Your task to perform on an android device: change notification settings in the gmail app Image 0: 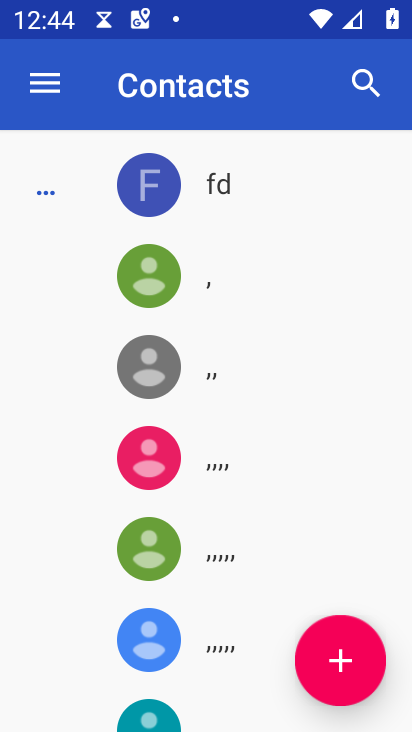
Step 0: press home button
Your task to perform on an android device: change notification settings in the gmail app Image 1: 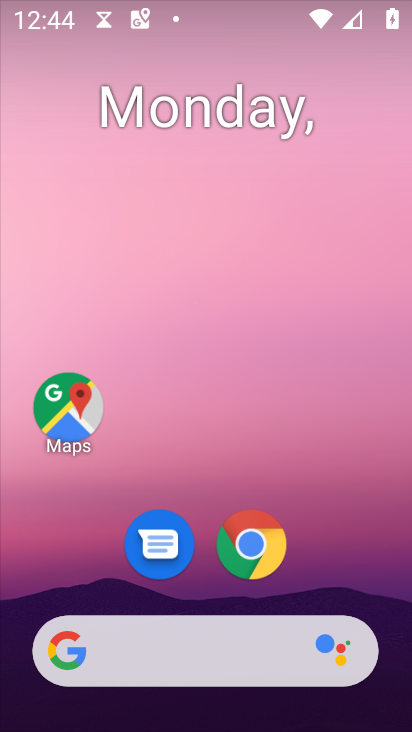
Step 1: drag from (342, 574) to (336, 290)
Your task to perform on an android device: change notification settings in the gmail app Image 2: 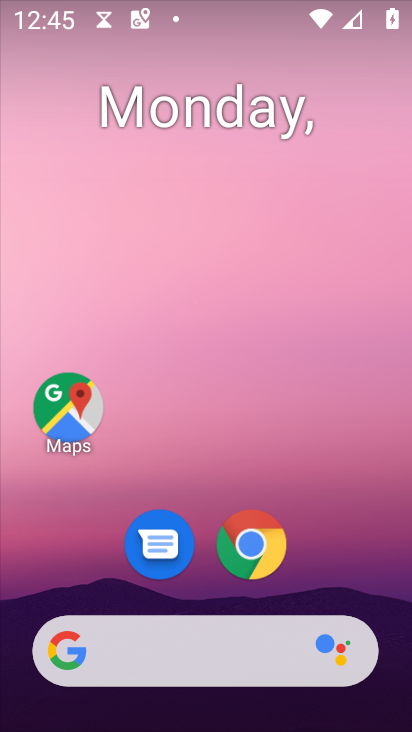
Step 2: drag from (325, 566) to (299, 201)
Your task to perform on an android device: change notification settings in the gmail app Image 3: 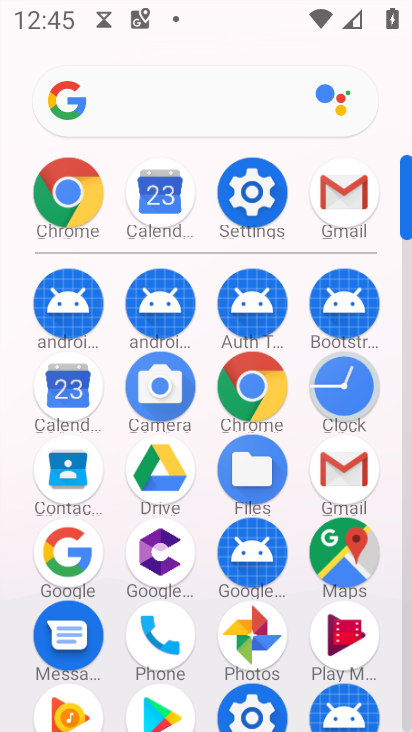
Step 3: click (324, 180)
Your task to perform on an android device: change notification settings in the gmail app Image 4: 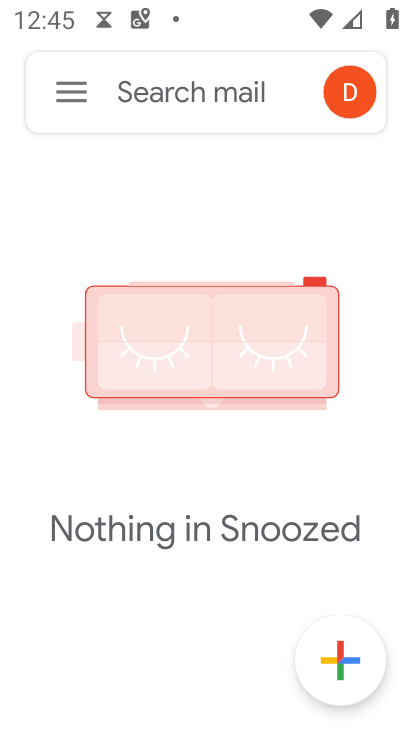
Step 4: click (78, 78)
Your task to perform on an android device: change notification settings in the gmail app Image 5: 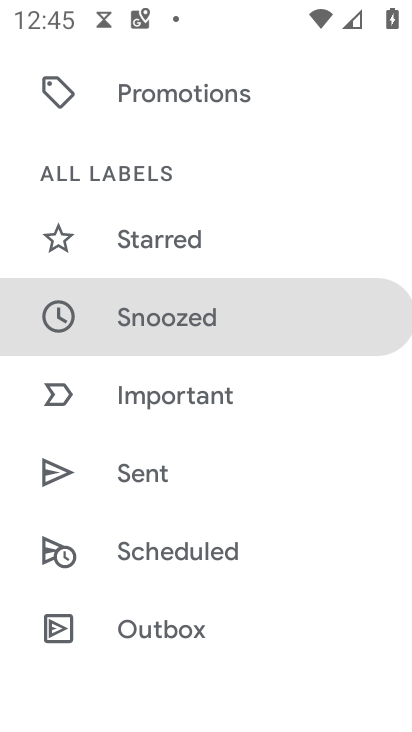
Step 5: drag from (266, 636) to (295, 176)
Your task to perform on an android device: change notification settings in the gmail app Image 6: 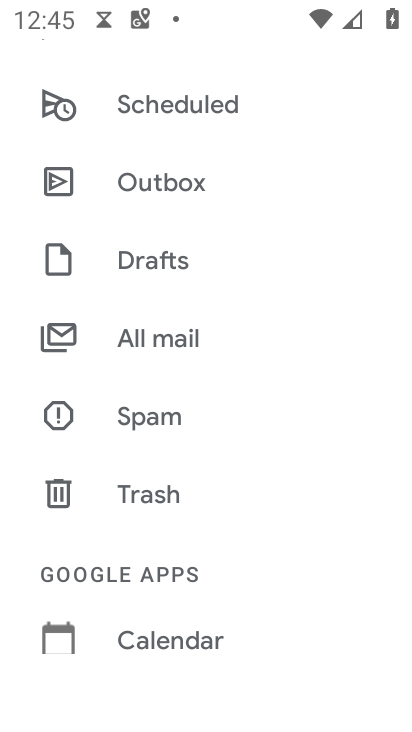
Step 6: drag from (171, 590) to (235, 109)
Your task to perform on an android device: change notification settings in the gmail app Image 7: 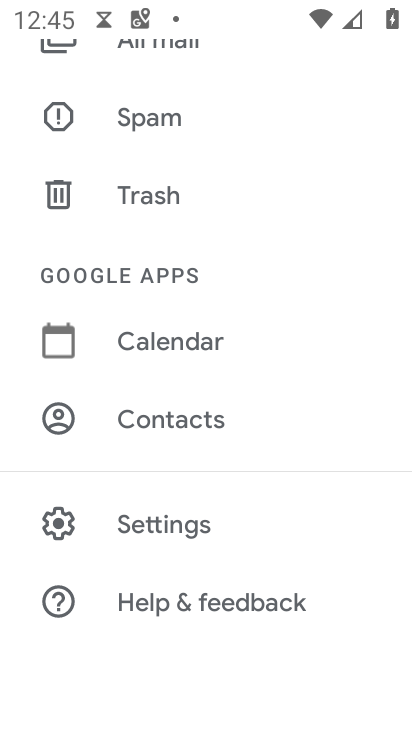
Step 7: click (163, 533)
Your task to perform on an android device: change notification settings in the gmail app Image 8: 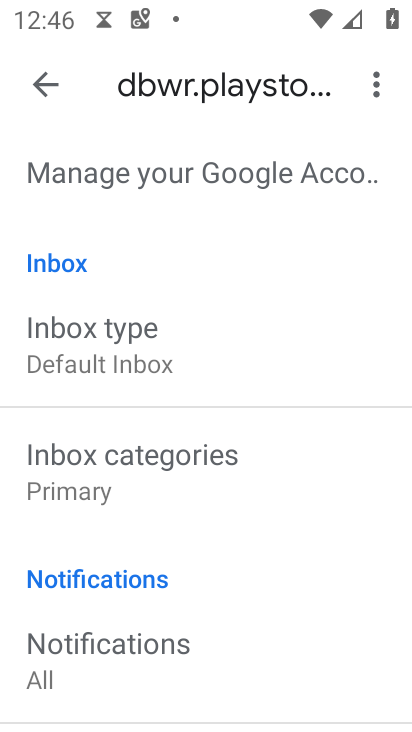
Step 8: drag from (187, 550) to (239, 265)
Your task to perform on an android device: change notification settings in the gmail app Image 9: 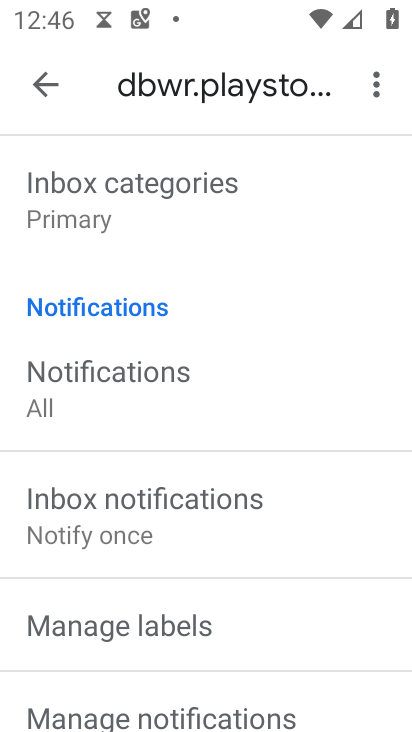
Step 9: click (137, 389)
Your task to perform on an android device: change notification settings in the gmail app Image 10: 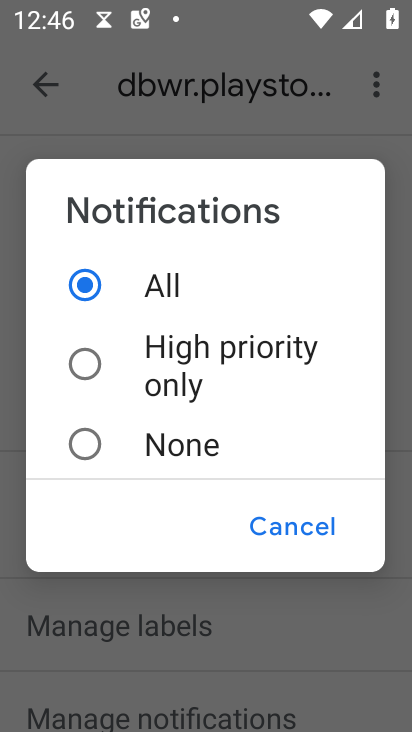
Step 10: click (174, 447)
Your task to perform on an android device: change notification settings in the gmail app Image 11: 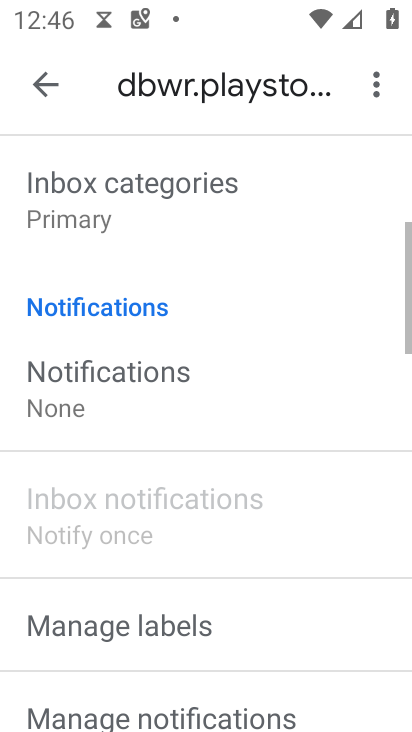
Step 11: task complete